Your task to perform on an android device: turn off picture-in-picture Image 0: 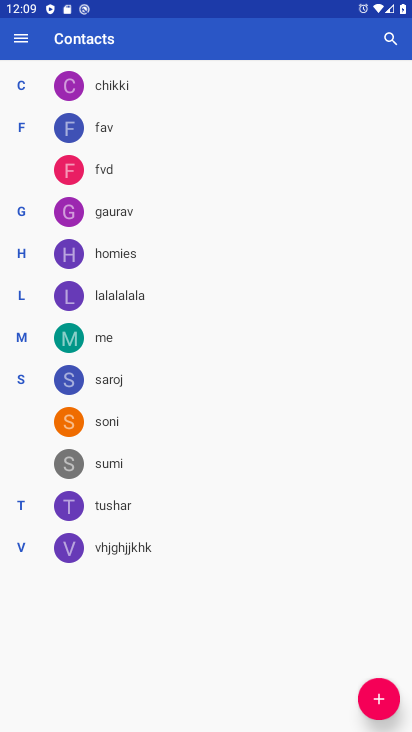
Step 0: press home button
Your task to perform on an android device: turn off picture-in-picture Image 1: 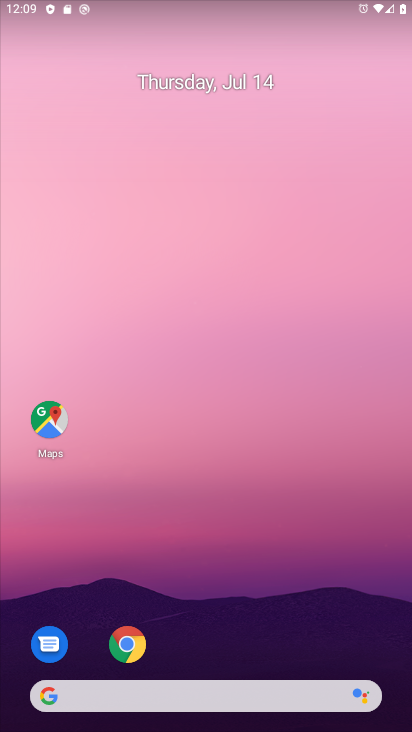
Step 1: drag from (197, 660) to (122, 204)
Your task to perform on an android device: turn off picture-in-picture Image 2: 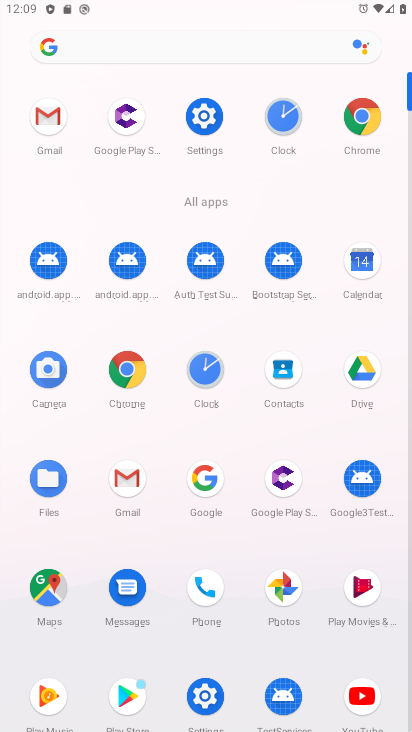
Step 2: click (187, 113)
Your task to perform on an android device: turn off picture-in-picture Image 3: 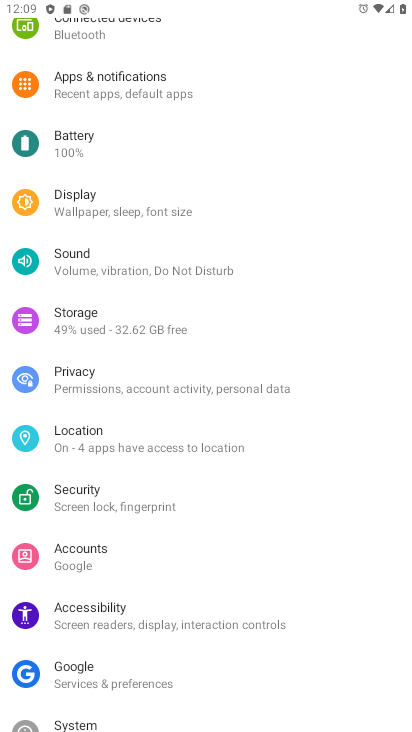
Step 3: drag from (137, 510) to (128, 448)
Your task to perform on an android device: turn off picture-in-picture Image 4: 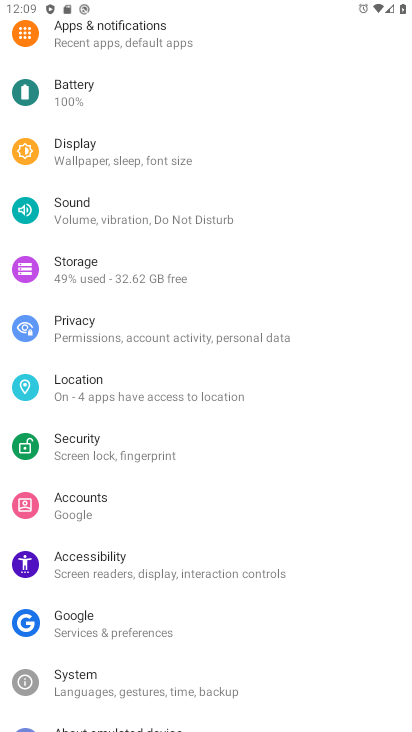
Step 4: click (96, 25)
Your task to perform on an android device: turn off picture-in-picture Image 5: 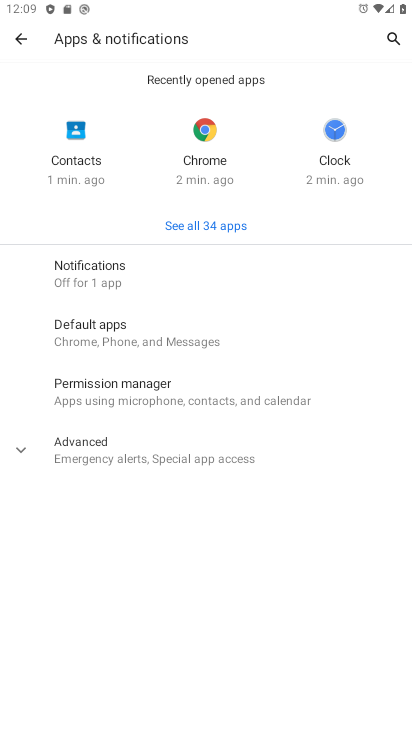
Step 5: click (67, 458)
Your task to perform on an android device: turn off picture-in-picture Image 6: 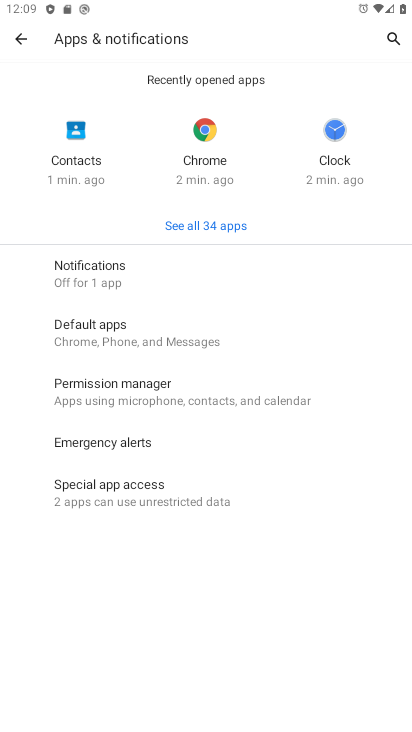
Step 6: click (80, 486)
Your task to perform on an android device: turn off picture-in-picture Image 7: 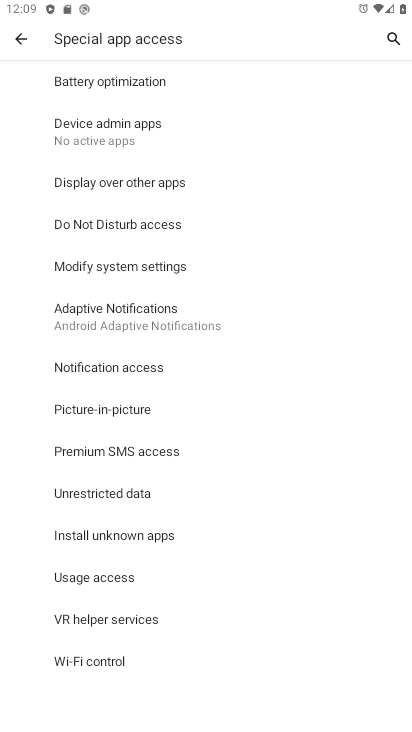
Step 7: click (113, 413)
Your task to perform on an android device: turn off picture-in-picture Image 8: 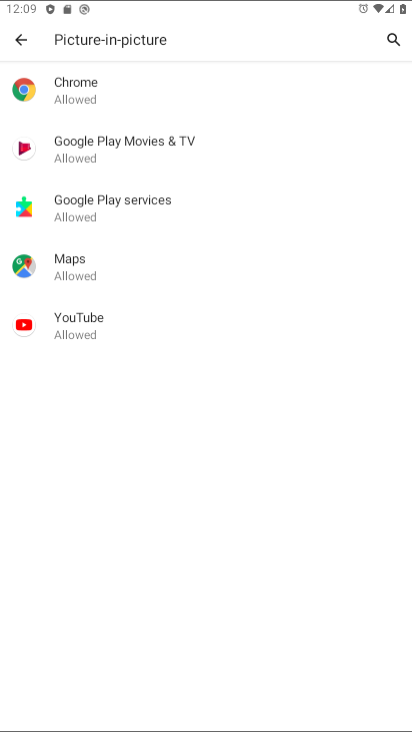
Step 8: task complete